Your task to perform on an android device: turn off translation in the chrome app Image 0: 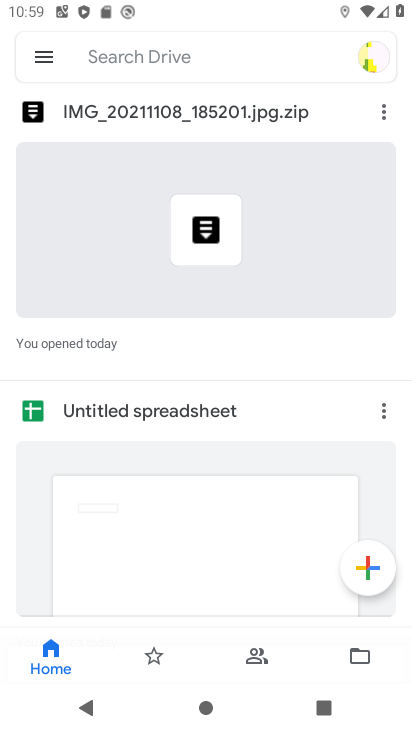
Step 0: press home button
Your task to perform on an android device: turn off translation in the chrome app Image 1: 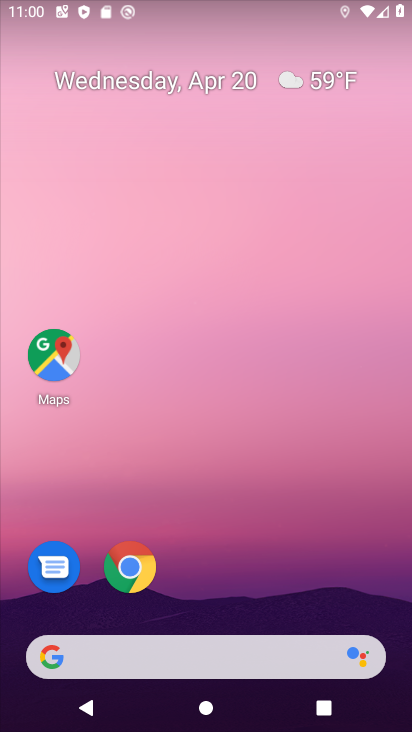
Step 1: click (107, 565)
Your task to perform on an android device: turn off translation in the chrome app Image 2: 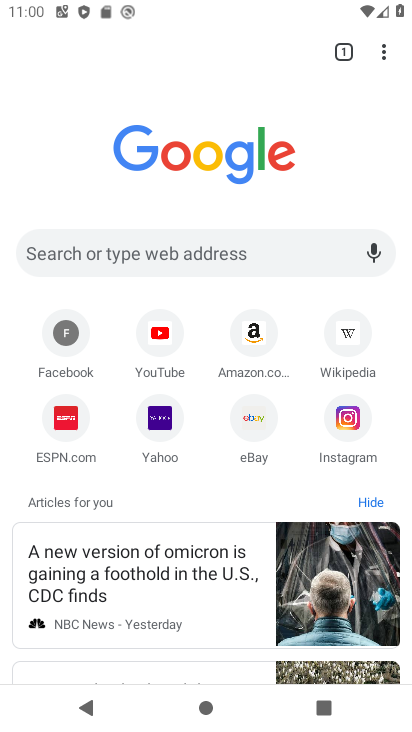
Step 2: click (377, 48)
Your task to perform on an android device: turn off translation in the chrome app Image 3: 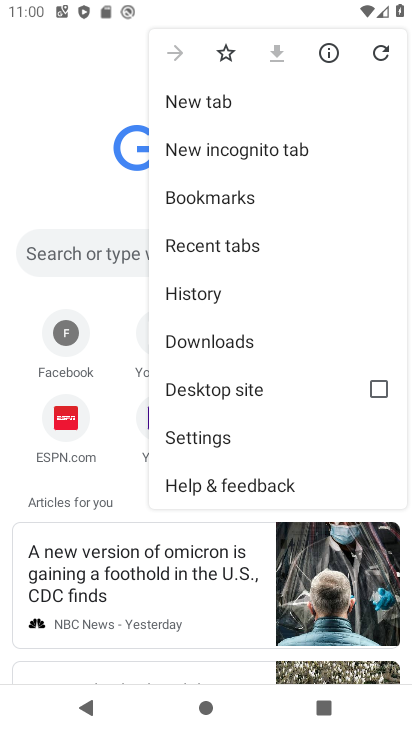
Step 3: click (227, 445)
Your task to perform on an android device: turn off translation in the chrome app Image 4: 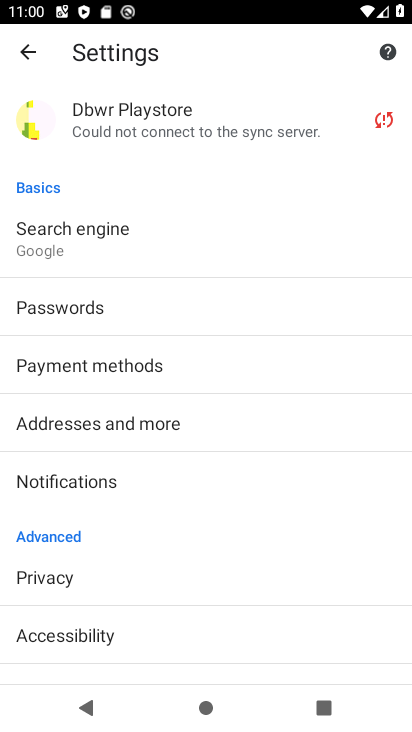
Step 4: drag from (140, 606) to (144, 451)
Your task to perform on an android device: turn off translation in the chrome app Image 5: 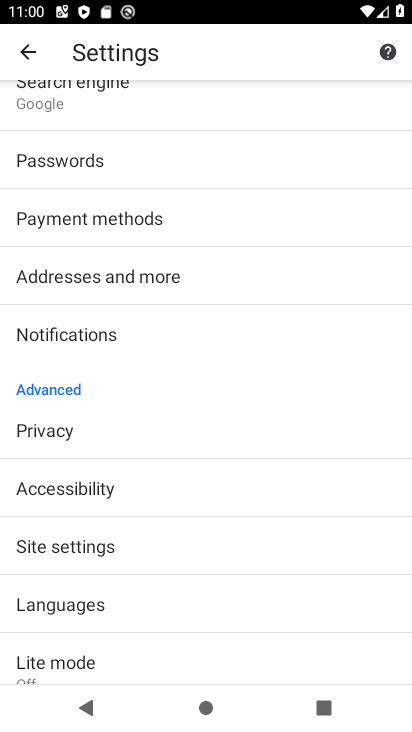
Step 5: drag from (170, 634) to (176, 512)
Your task to perform on an android device: turn off translation in the chrome app Image 6: 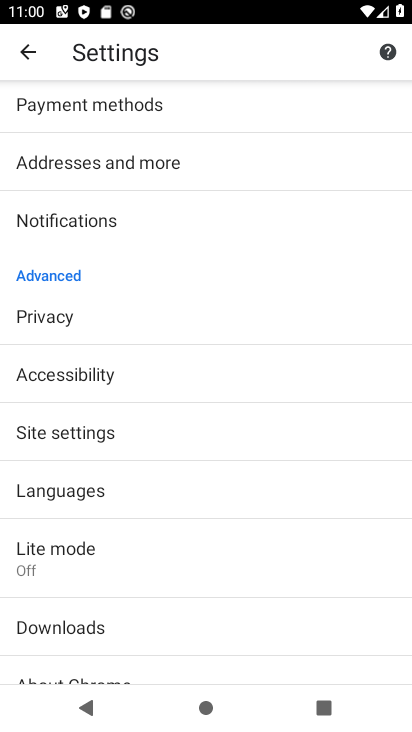
Step 6: click (174, 491)
Your task to perform on an android device: turn off translation in the chrome app Image 7: 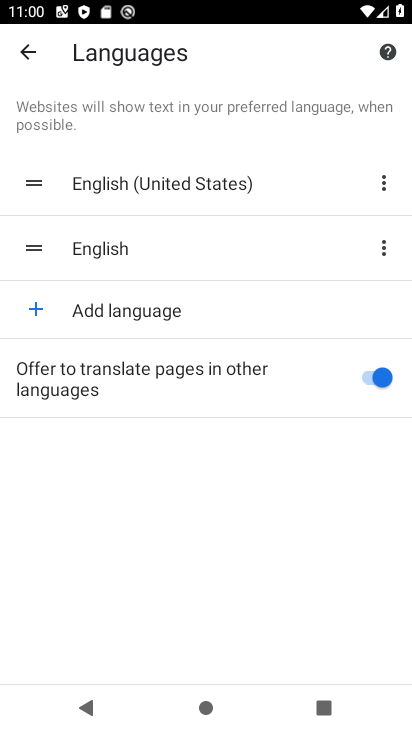
Step 7: click (358, 379)
Your task to perform on an android device: turn off translation in the chrome app Image 8: 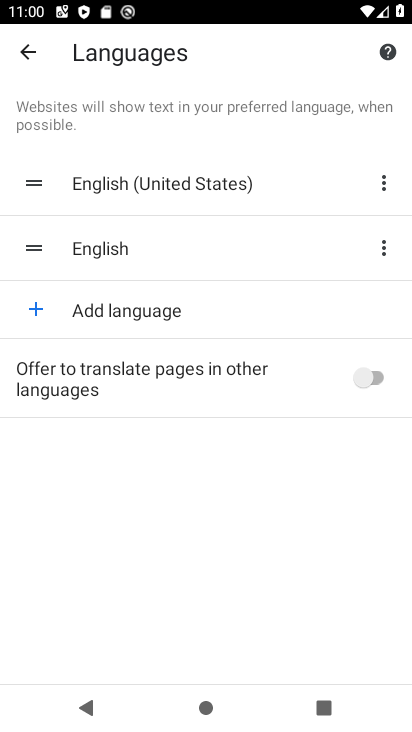
Step 8: task complete